Your task to perform on an android device: What's on my calendar tomorrow? Image 0: 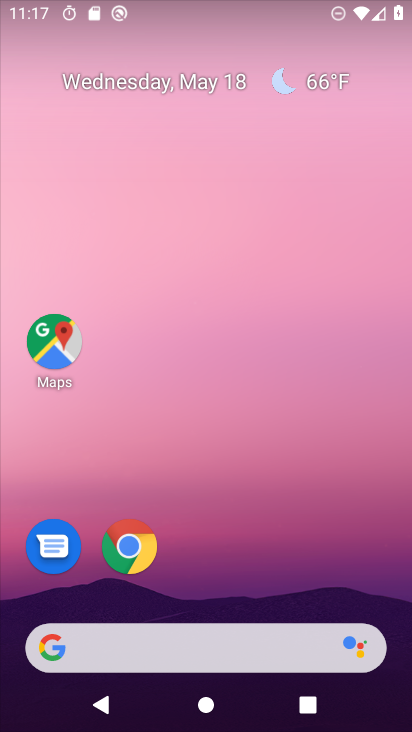
Step 0: click (147, 91)
Your task to perform on an android device: What's on my calendar tomorrow? Image 1: 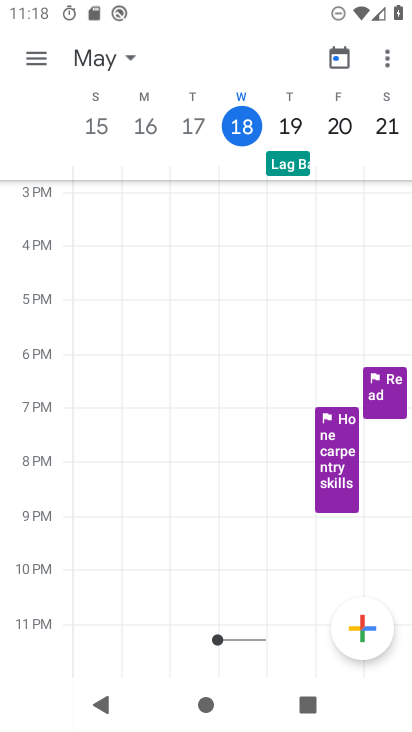
Step 1: click (285, 122)
Your task to perform on an android device: What's on my calendar tomorrow? Image 2: 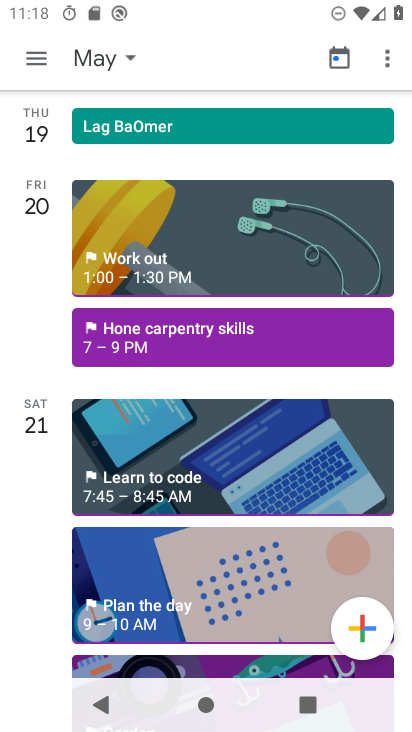
Step 2: task complete